Your task to perform on an android device: open a bookmark in the chrome app Image 0: 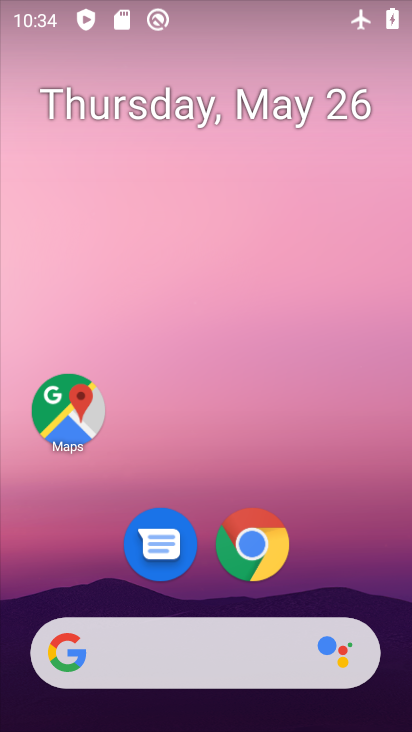
Step 0: drag from (353, 585) to (283, 10)
Your task to perform on an android device: open a bookmark in the chrome app Image 1: 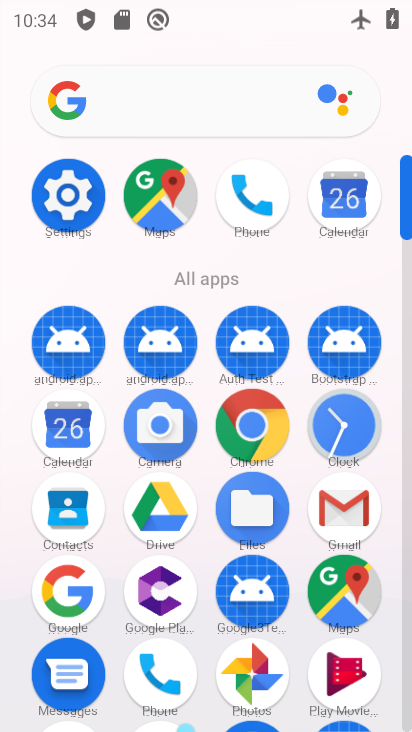
Step 1: drag from (0, 579) to (14, 237)
Your task to perform on an android device: open a bookmark in the chrome app Image 2: 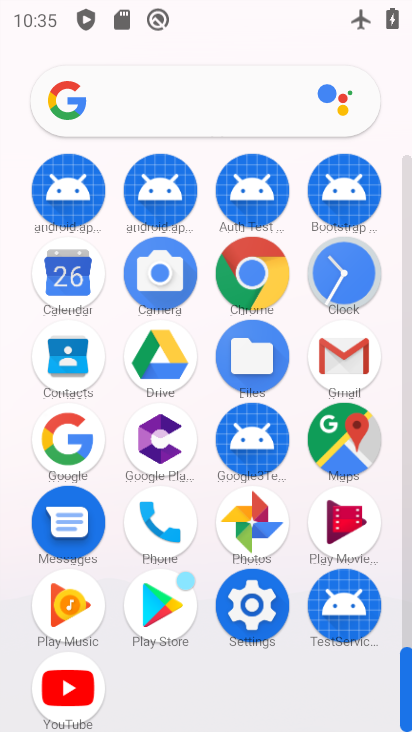
Step 2: click (248, 270)
Your task to perform on an android device: open a bookmark in the chrome app Image 3: 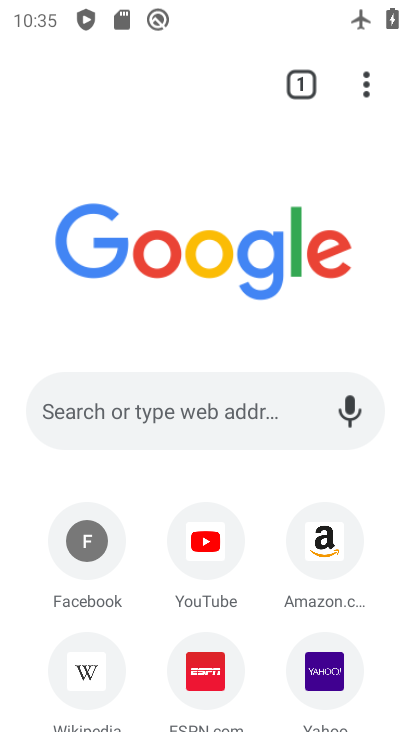
Step 3: task complete